Your task to perform on an android device: Add razer blackwidow to the cart on costco.com Image 0: 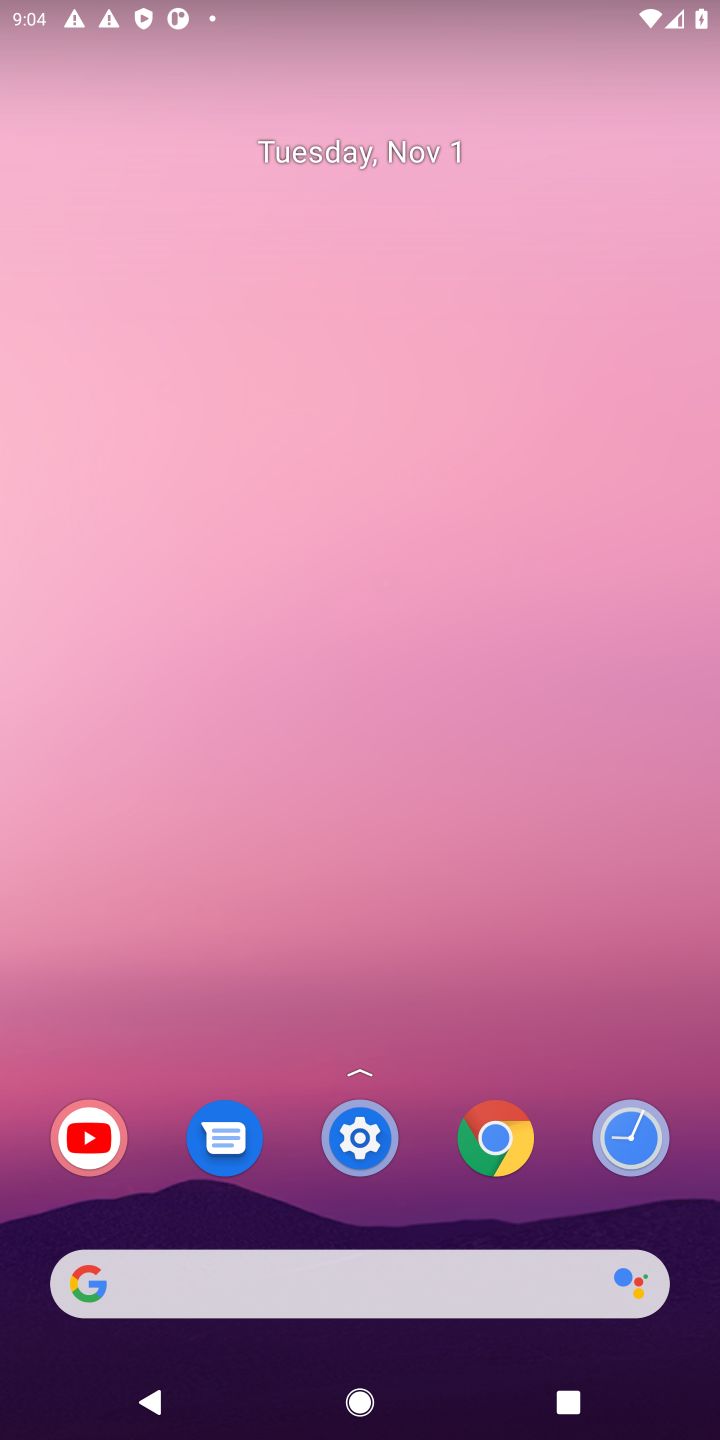
Step 0: click (505, 1134)
Your task to perform on an android device: Add razer blackwidow to the cart on costco.com Image 1: 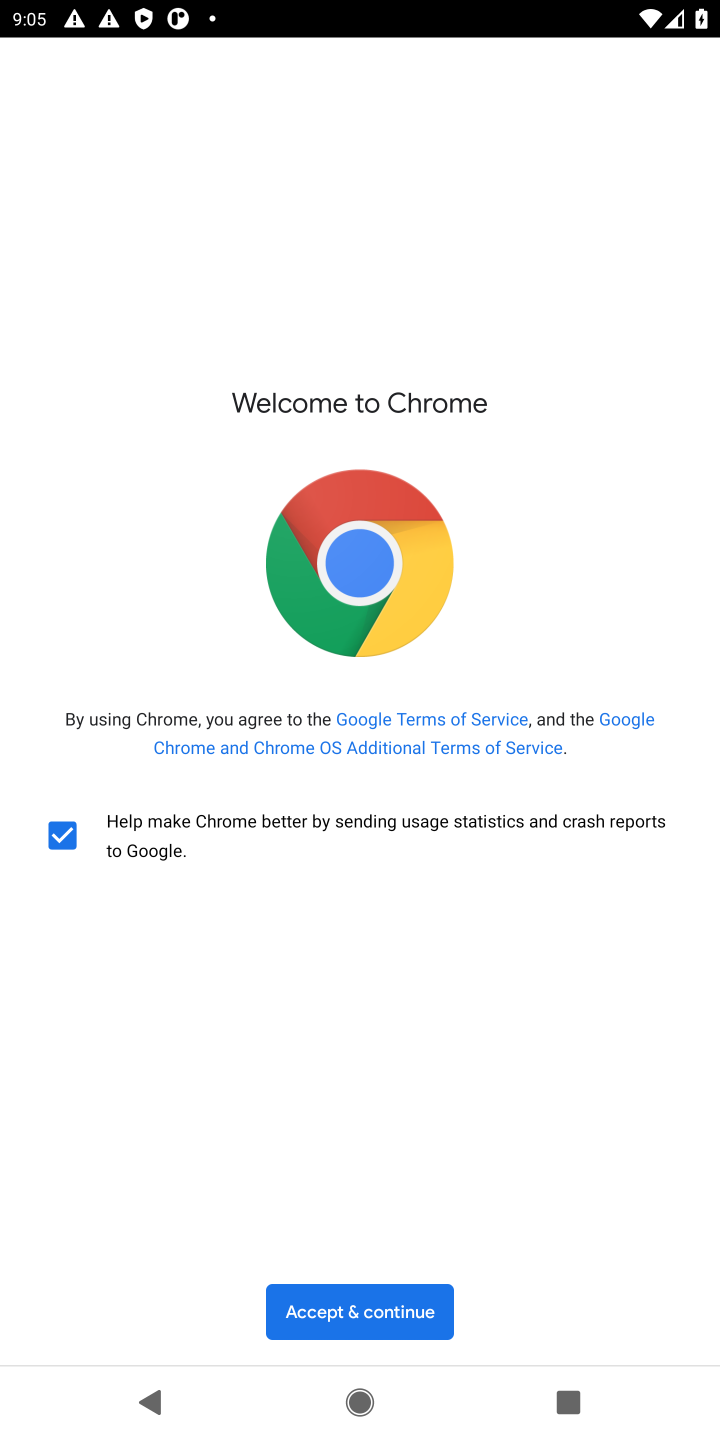
Step 1: click (396, 1302)
Your task to perform on an android device: Add razer blackwidow to the cart on costco.com Image 2: 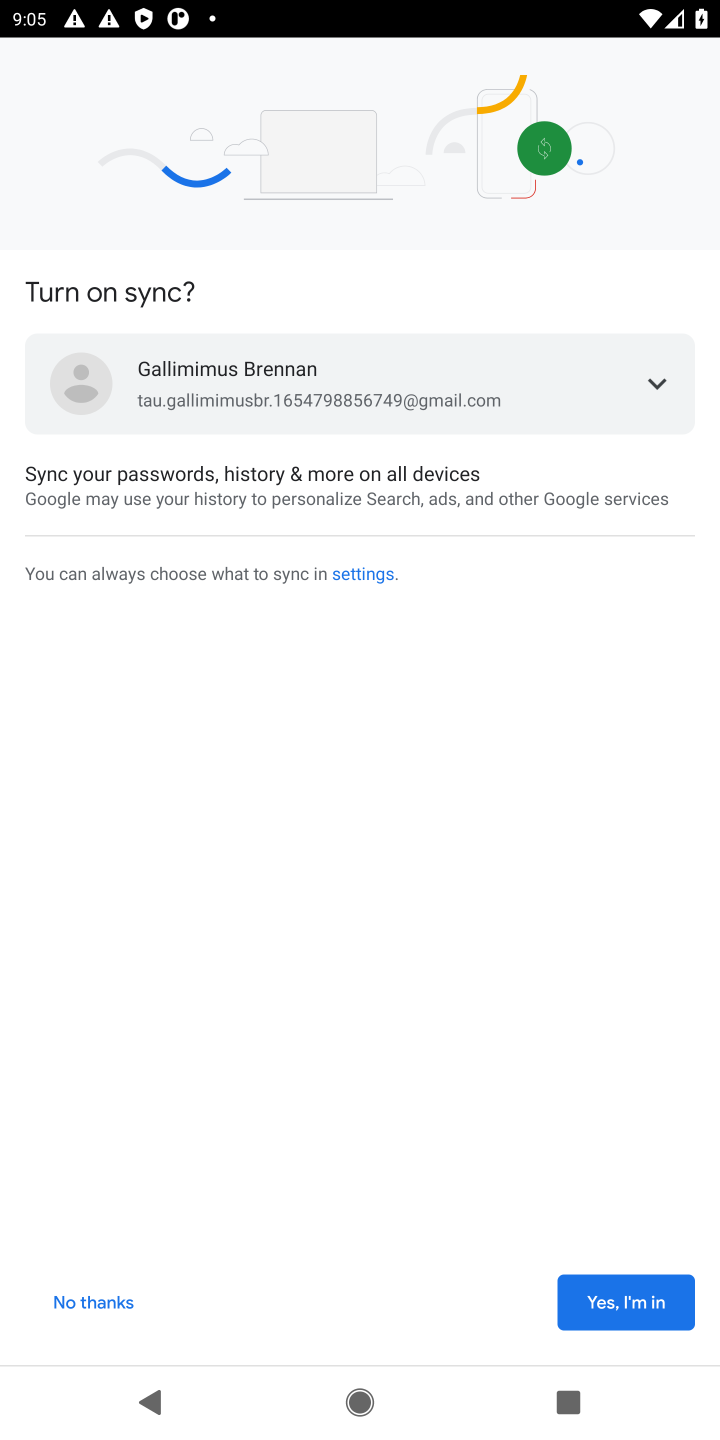
Step 2: click (105, 1304)
Your task to perform on an android device: Add razer blackwidow to the cart on costco.com Image 3: 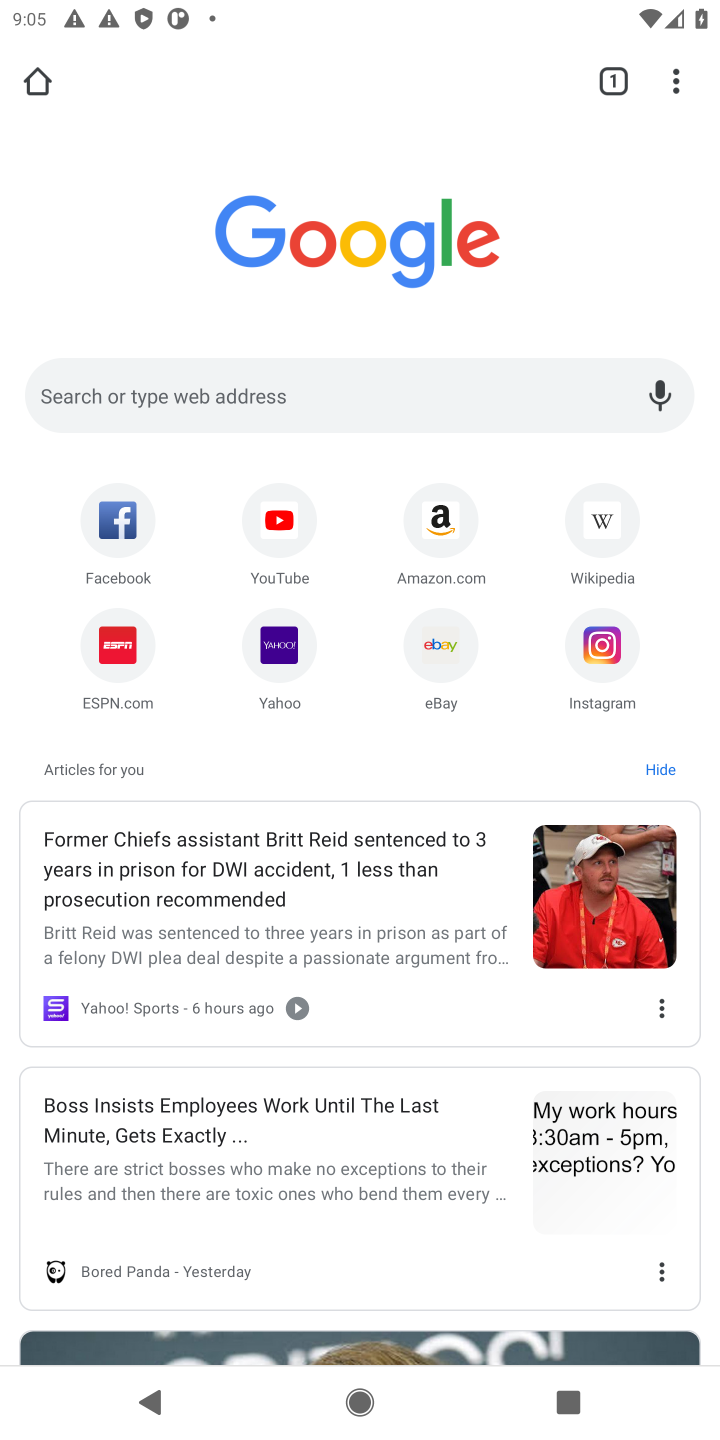
Step 3: click (244, 378)
Your task to perform on an android device: Add razer blackwidow to the cart on costco.com Image 4: 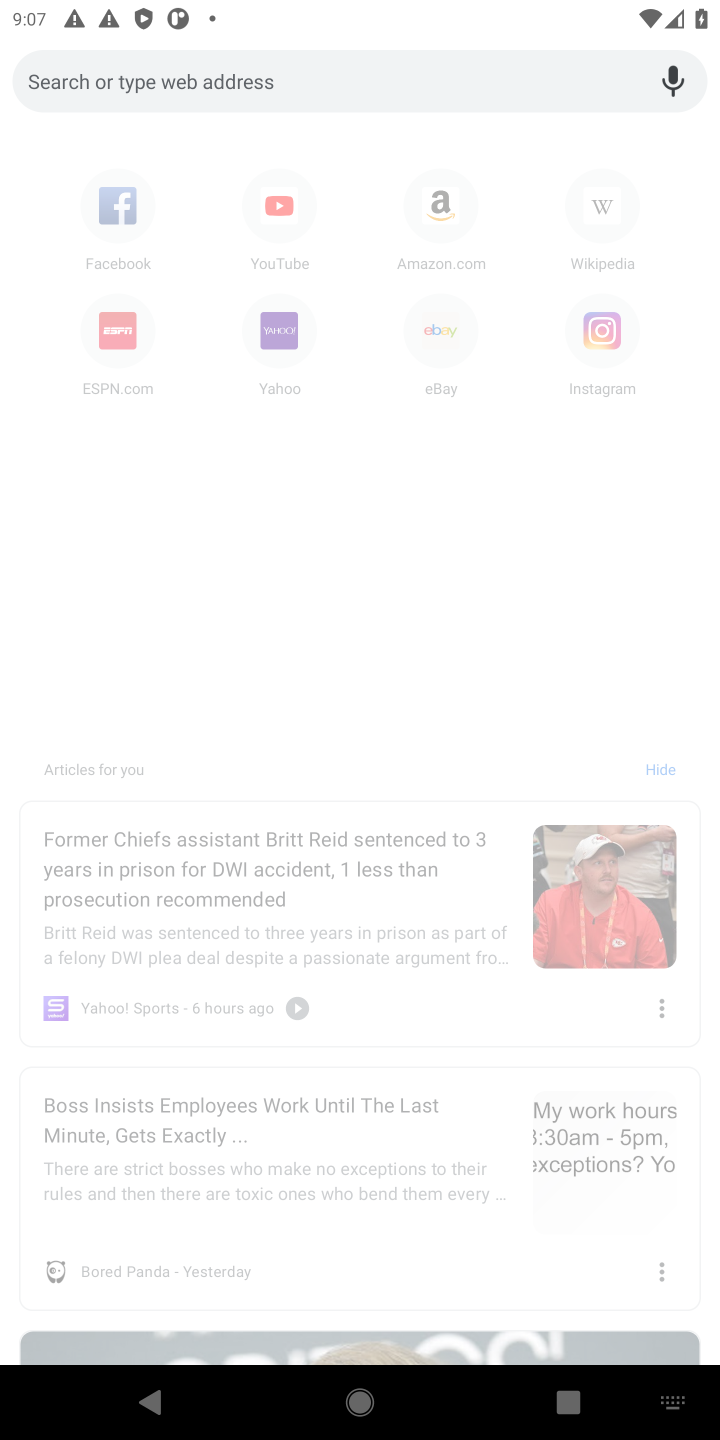
Step 4: type "costco.com"
Your task to perform on an android device: Add razer blackwidow to the cart on costco.com Image 5: 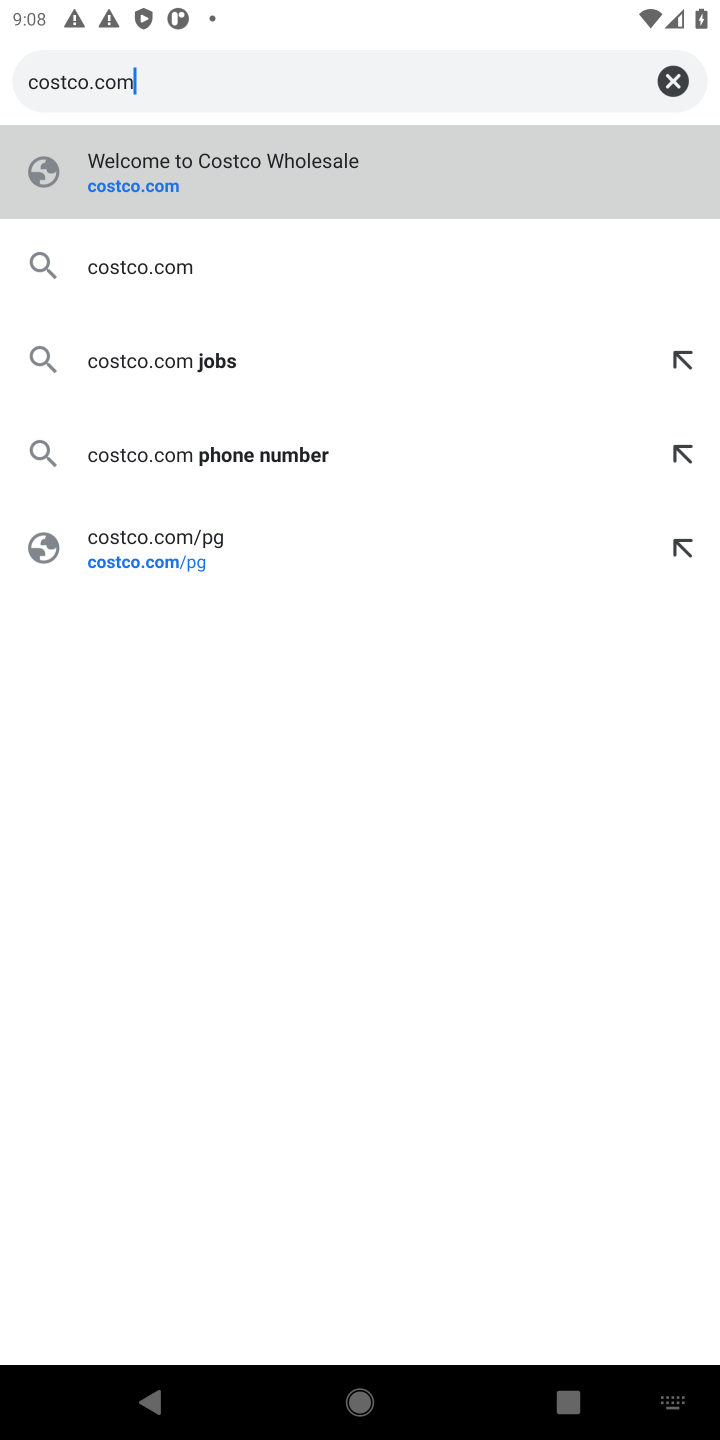
Step 5: click (146, 266)
Your task to perform on an android device: Add razer blackwidow to the cart on costco.com Image 6: 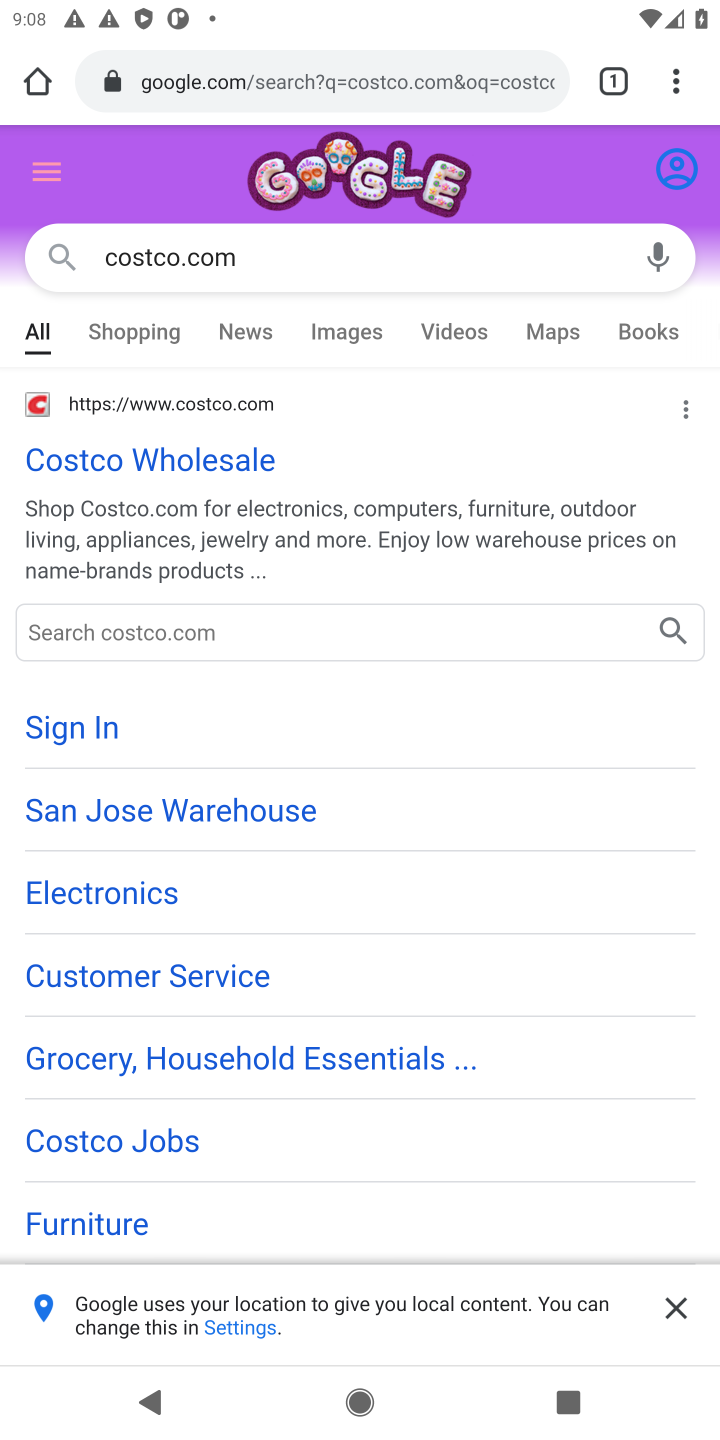
Step 6: click (168, 463)
Your task to perform on an android device: Add razer blackwidow to the cart on costco.com Image 7: 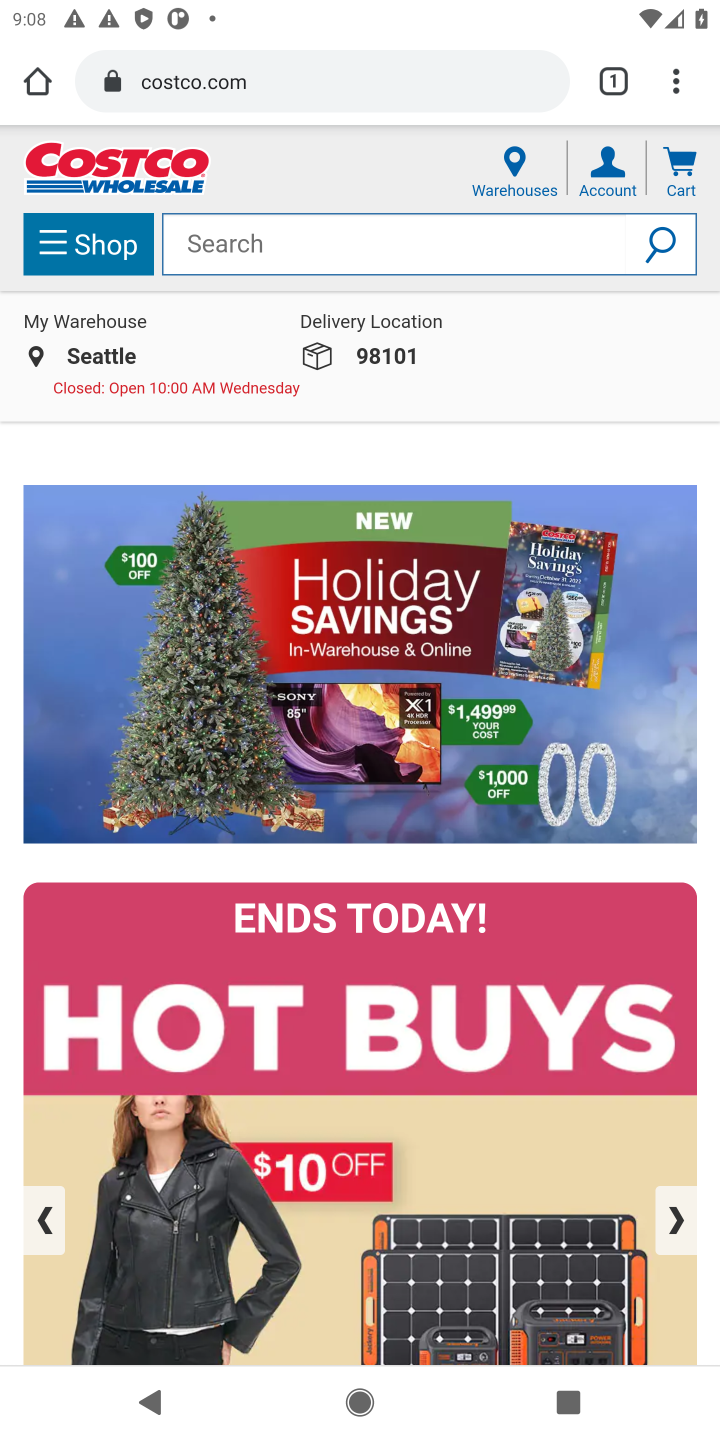
Step 7: click (349, 226)
Your task to perform on an android device: Add razer blackwidow to the cart on costco.com Image 8: 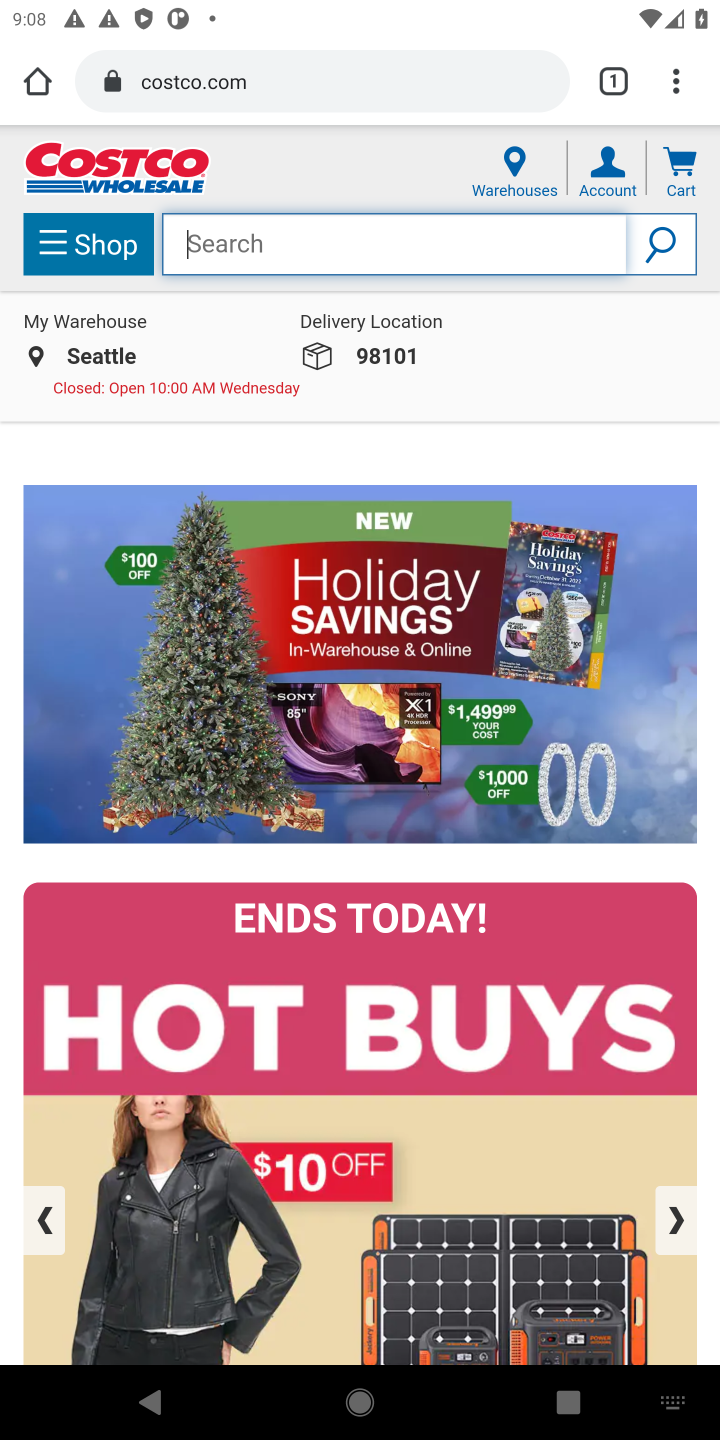
Step 8: type "razer blackwidow"
Your task to perform on an android device: Add razer blackwidow to the cart on costco.com Image 9: 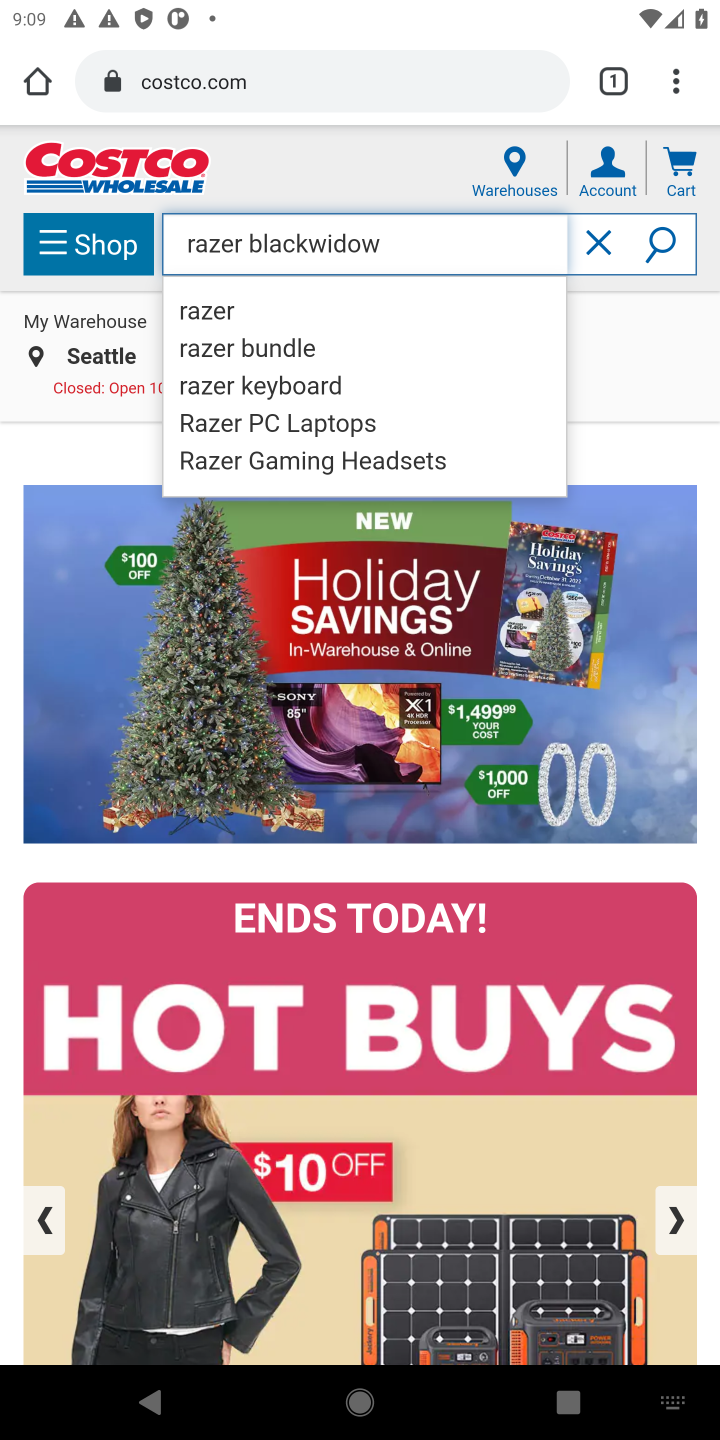
Step 9: click (665, 253)
Your task to perform on an android device: Add razer blackwidow to the cart on costco.com Image 10: 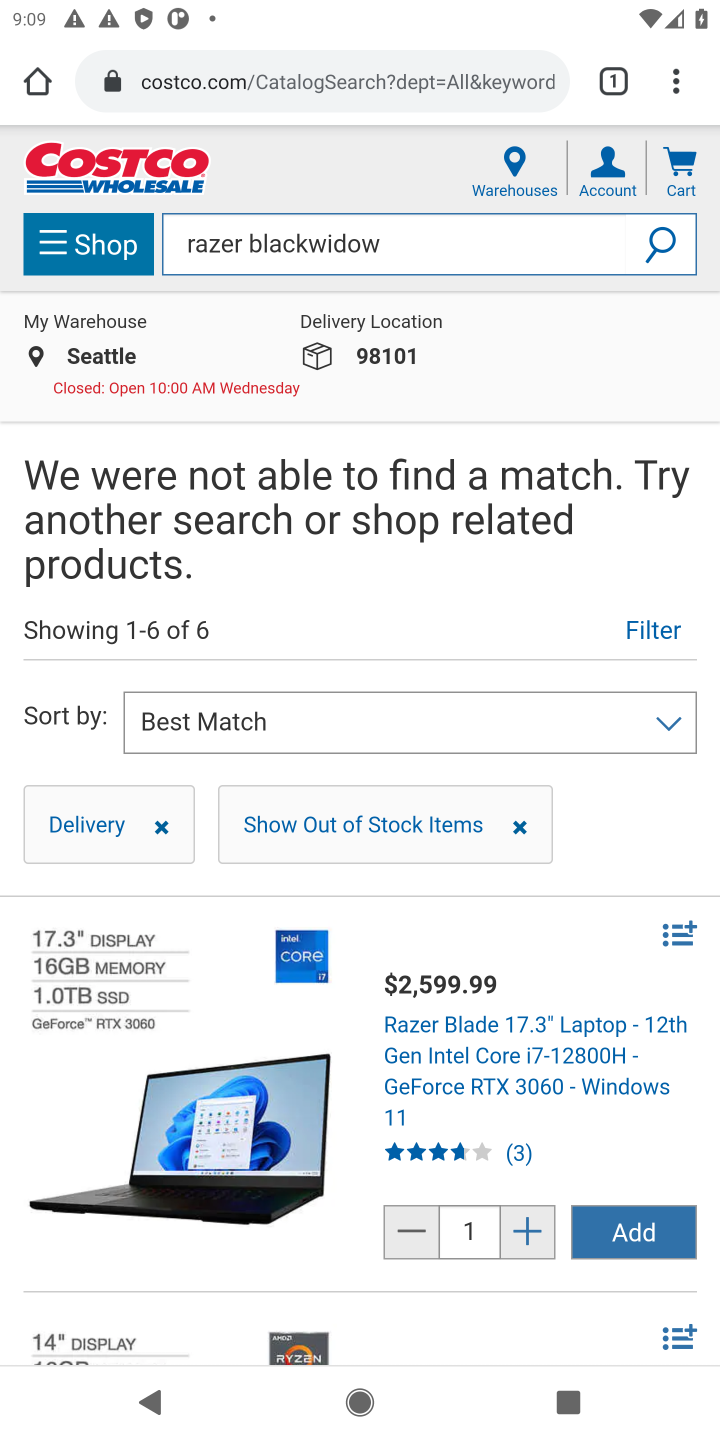
Step 10: click (629, 1220)
Your task to perform on an android device: Add razer blackwidow to the cart on costco.com Image 11: 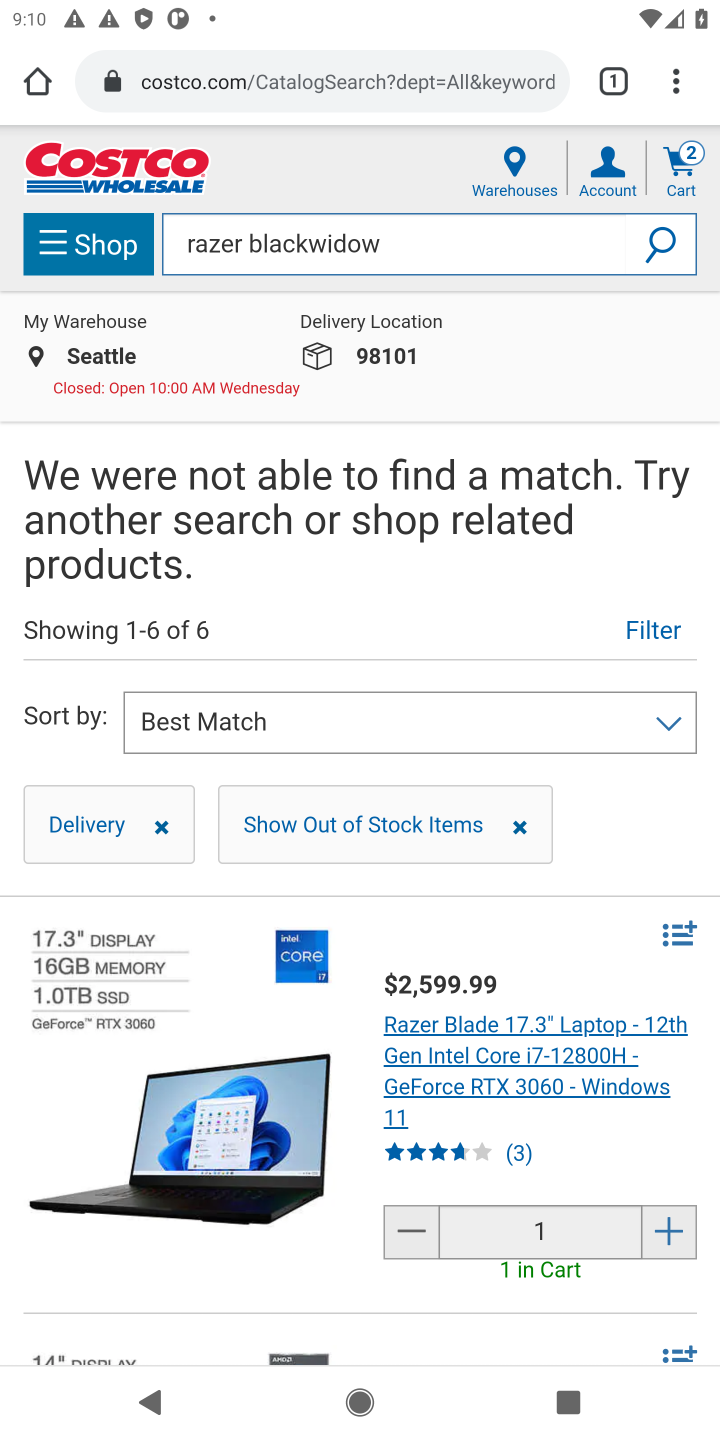
Step 11: task complete